Your task to perform on an android device: refresh tabs in the chrome app Image 0: 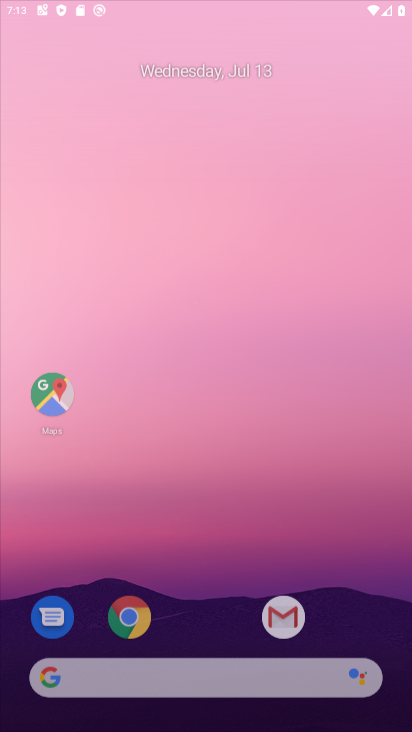
Step 0: press home button
Your task to perform on an android device: refresh tabs in the chrome app Image 1: 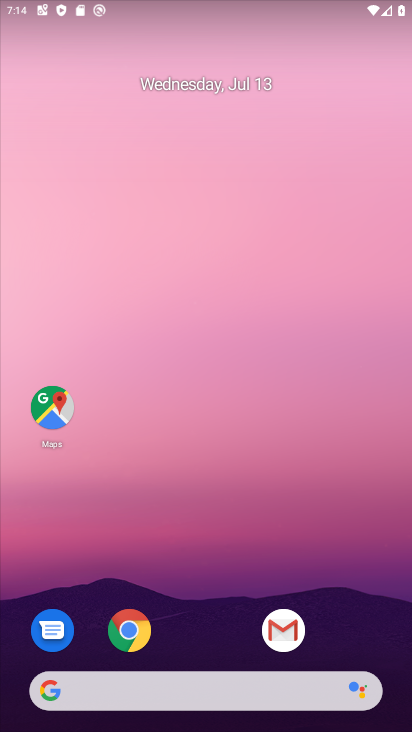
Step 1: click (130, 623)
Your task to perform on an android device: refresh tabs in the chrome app Image 2: 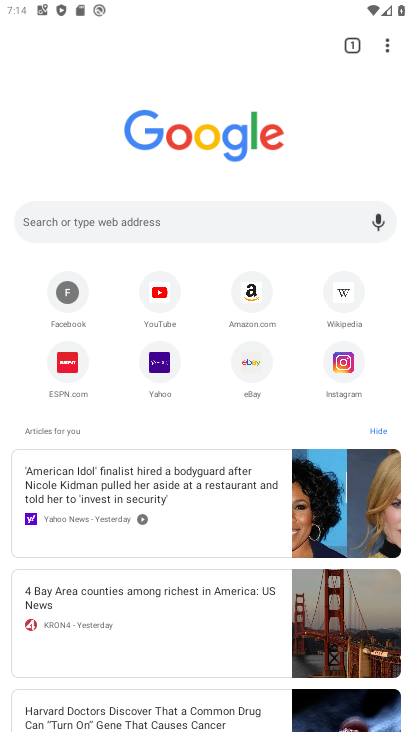
Step 2: click (389, 57)
Your task to perform on an android device: refresh tabs in the chrome app Image 3: 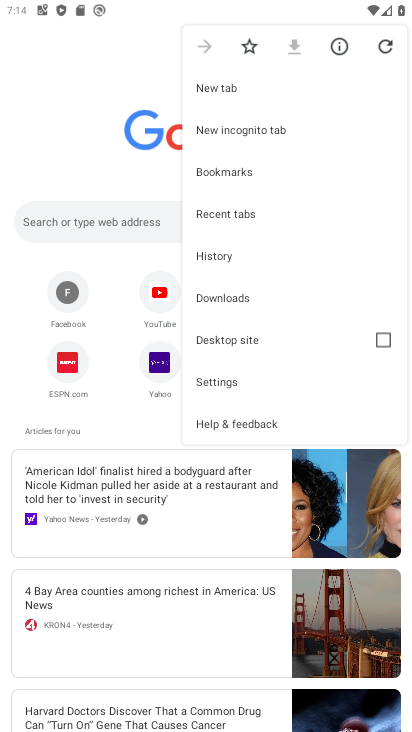
Step 3: click (382, 49)
Your task to perform on an android device: refresh tabs in the chrome app Image 4: 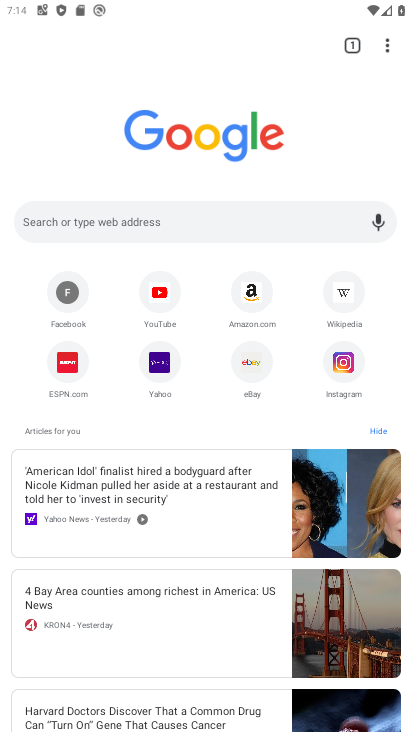
Step 4: task complete